Your task to perform on an android device: search for starred emails in the gmail app Image 0: 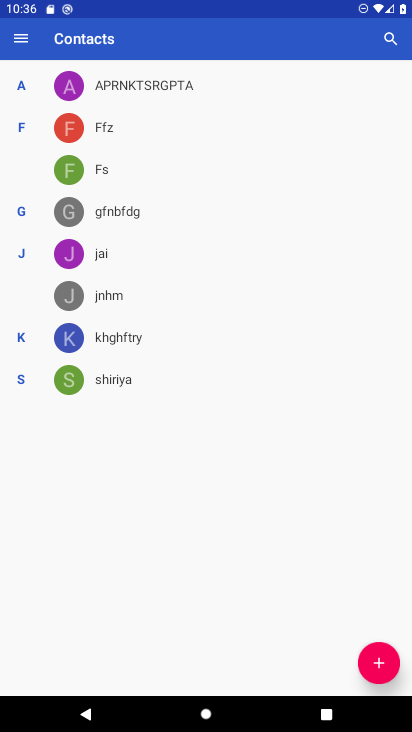
Step 0: press home button
Your task to perform on an android device: search for starred emails in the gmail app Image 1: 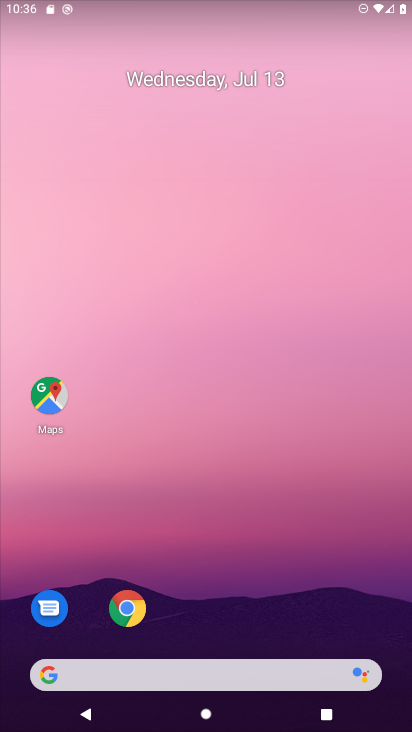
Step 1: drag from (184, 668) to (178, 278)
Your task to perform on an android device: search for starred emails in the gmail app Image 2: 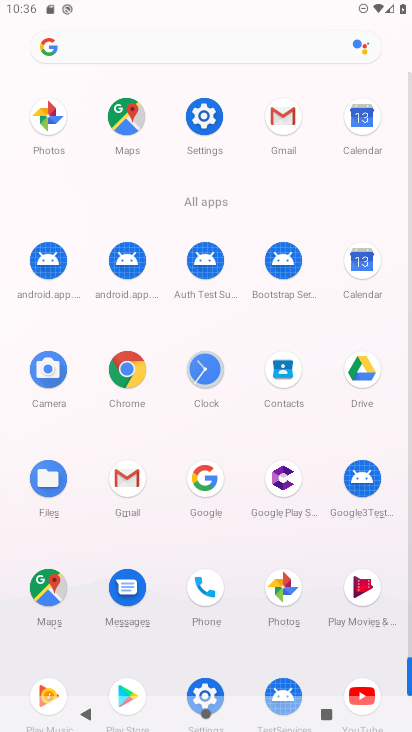
Step 2: click (283, 115)
Your task to perform on an android device: search for starred emails in the gmail app Image 3: 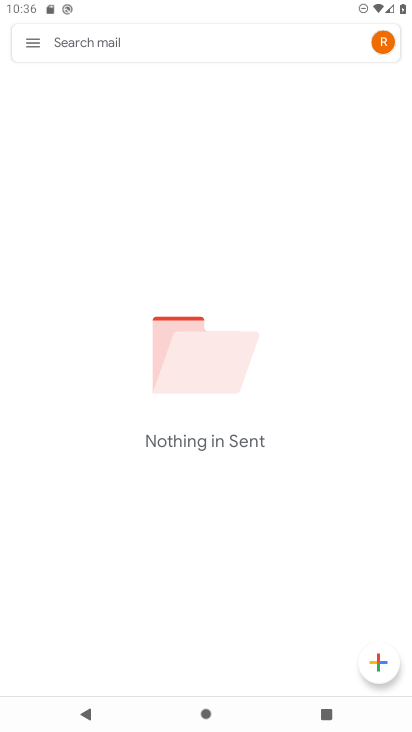
Step 3: click (35, 43)
Your task to perform on an android device: search for starred emails in the gmail app Image 4: 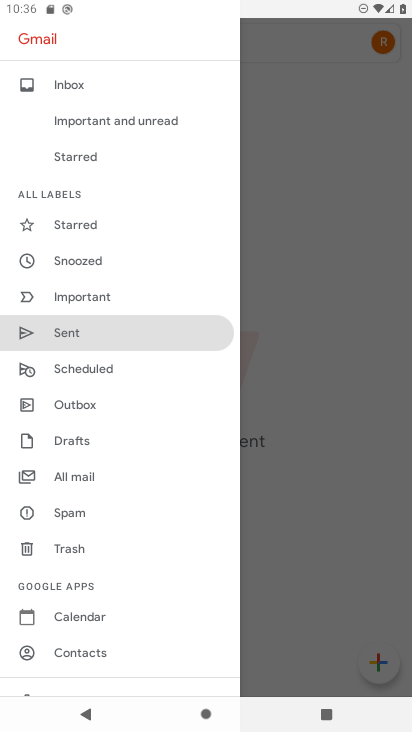
Step 4: click (74, 77)
Your task to perform on an android device: search for starred emails in the gmail app Image 5: 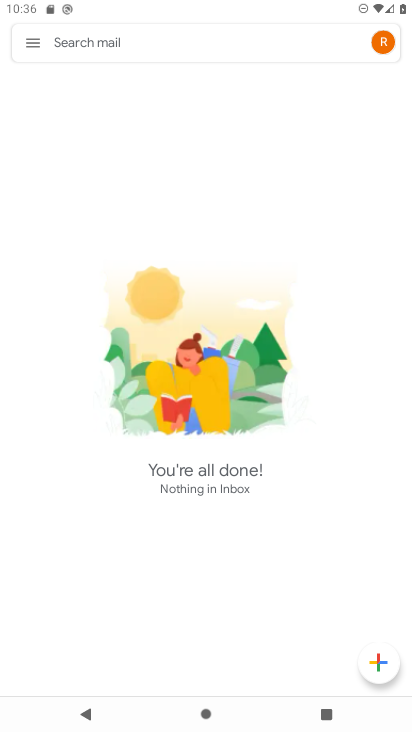
Step 5: click (36, 43)
Your task to perform on an android device: search for starred emails in the gmail app Image 6: 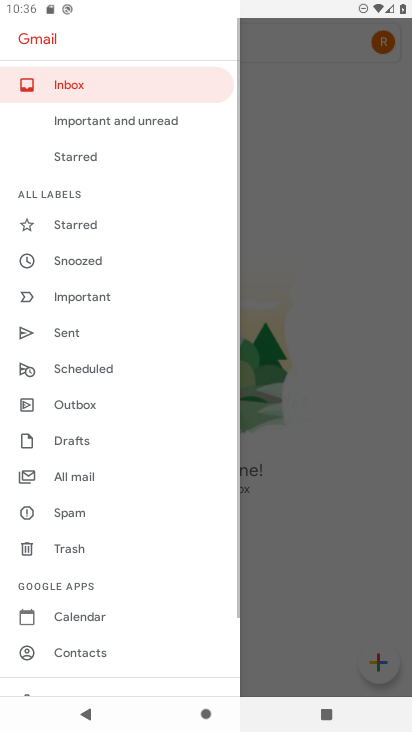
Step 6: click (61, 130)
Your task to perform on an android device: search for starred emails in the gmail app Image 7: 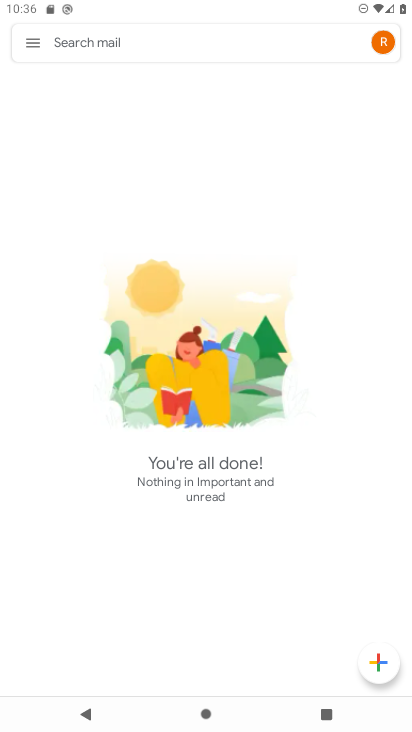
Step 7: click (38, 44)
Your task to perform on an android device: search for starred emails in the gmail app Image 8: 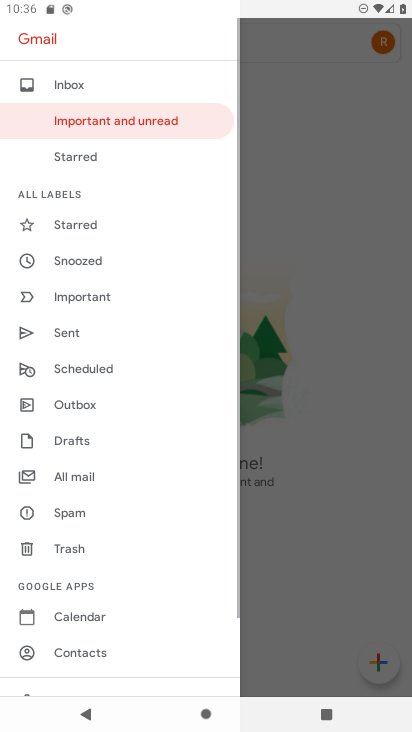
Step 8: click (112, 155)
Your task to perform on an android device: search for starred emails in the gmail app Image 9: 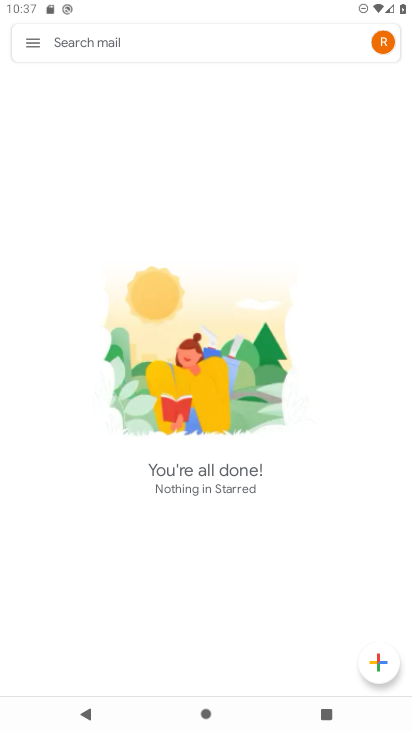
Step 9: click (33, 47)
Your task to perform on an android device: search for starred emails in the gmail app Image 10: 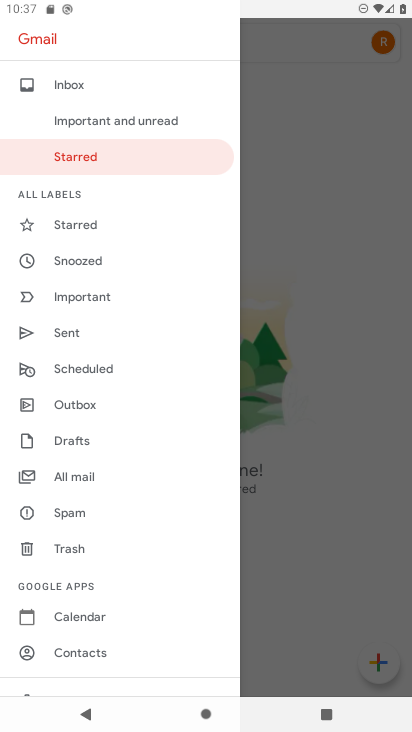
Step 10: click (70, 220)
Your task to perform on an android device: search for starred emails in the gmail app Image 11: 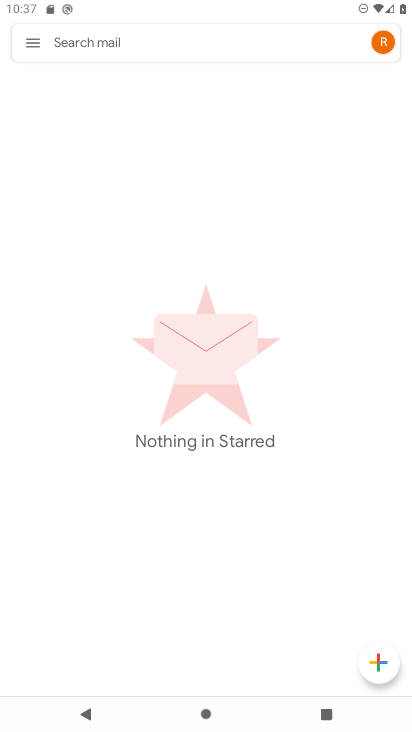
Step 11: click (34, 49)
Your task to perform on an android device: search for starred emails in the gmail app Image 12: 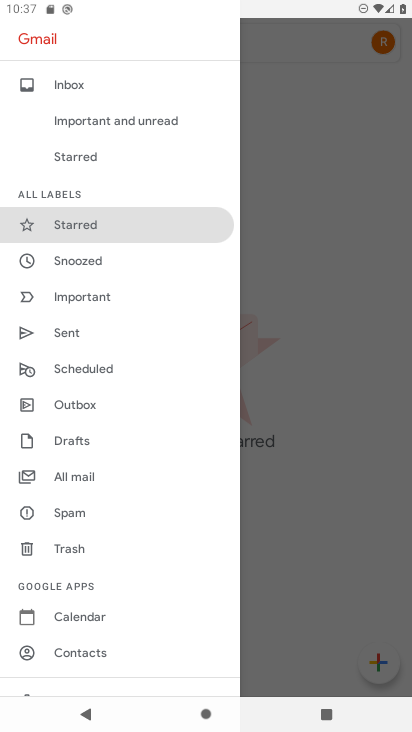
Step 12: click (71, 259)
Your task to perform on an android device: search for starred emails in the gmail app Image 13: 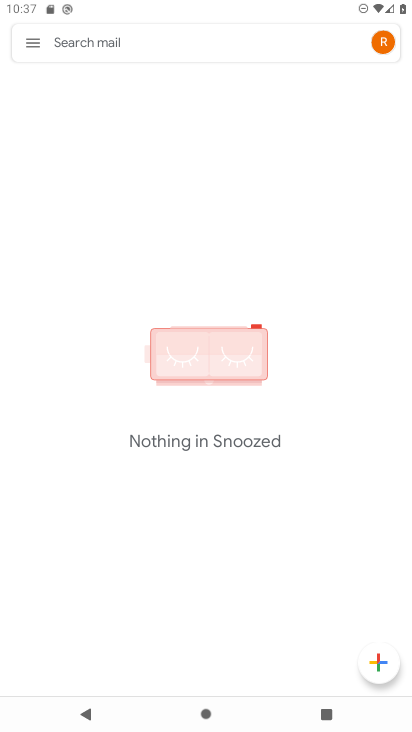
Step 13: click (33, 44)
Your task to perform on an android device: search for starred emails in the gmail app Image 14: 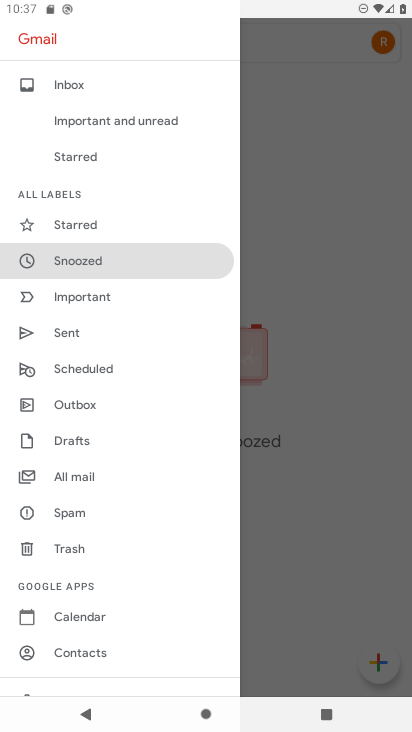
Step 14: click (73, 297)
Your task to perform on an android device: search for starred emails in the gmail app Image 15: 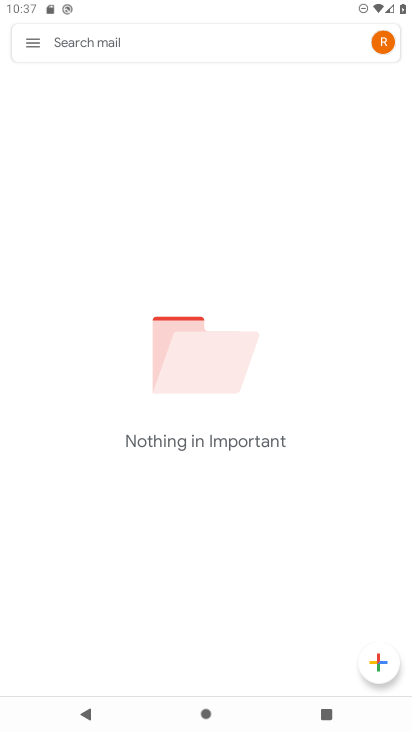
Step 15: click (79, 294)
Your task to perform on an android device: search for starred emails in the gmail app Image 16: 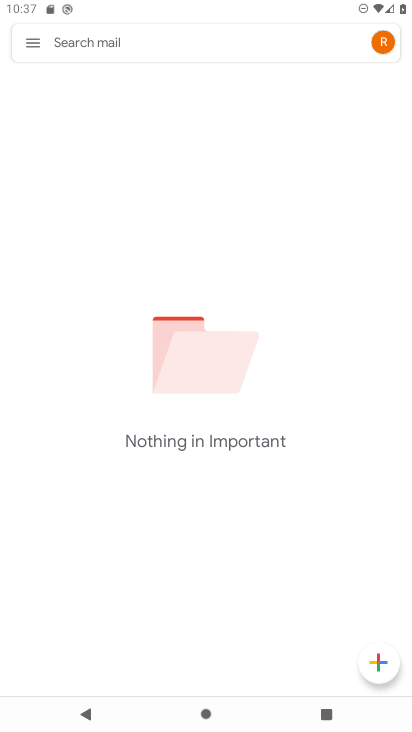
Step 16: task complete